Your task to perform on an android device: delete location history Image 0: 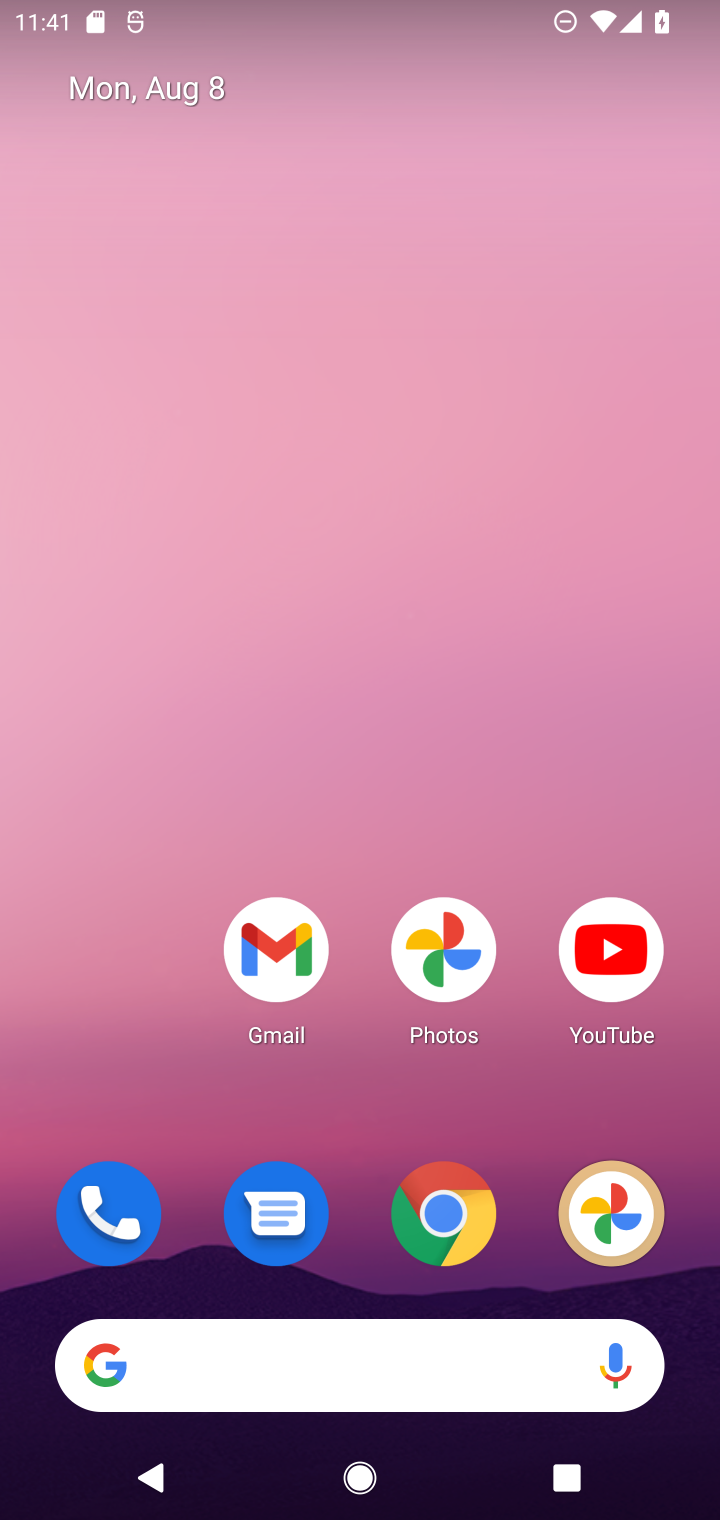
Step 0: press home button
Your task to perform on an android device: delete location history Image 1: 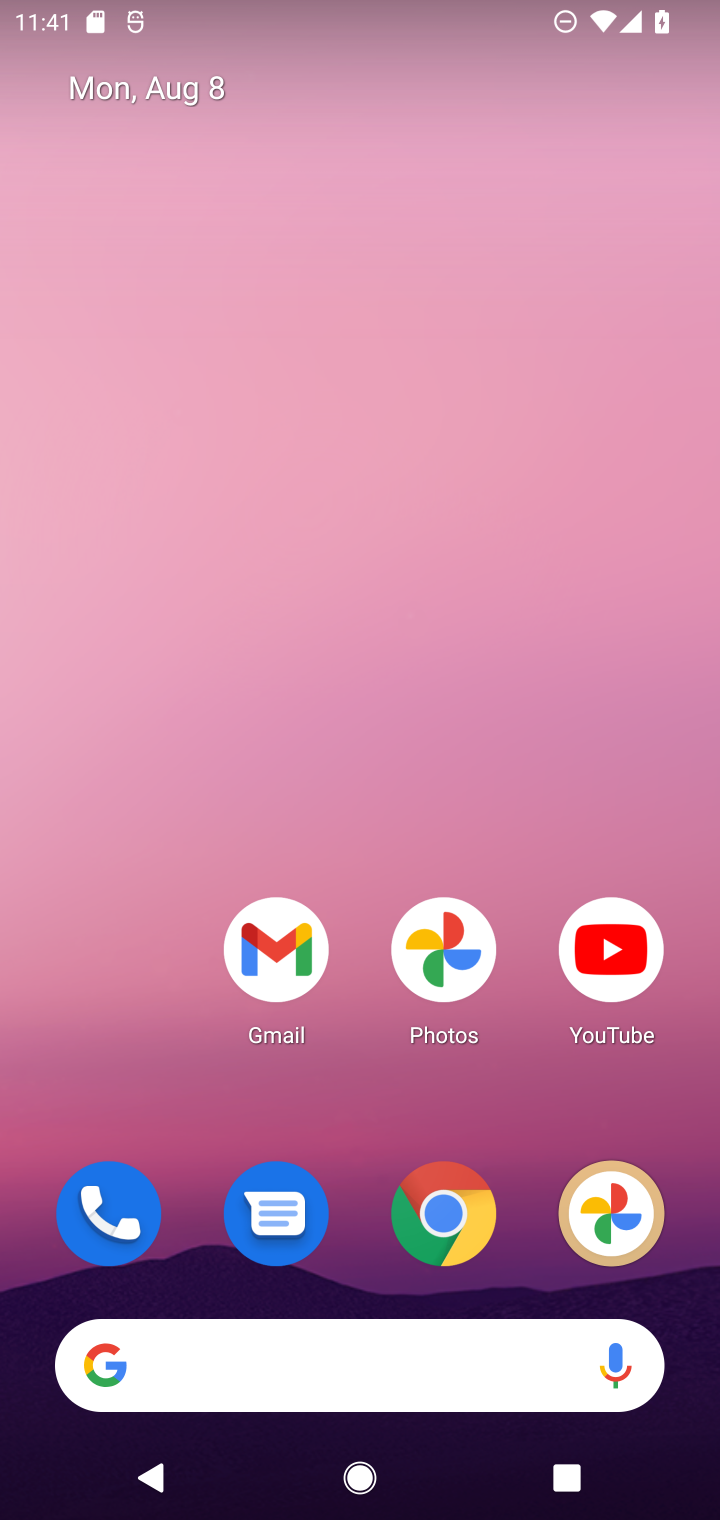
Step 1: drag from (369, 1110) to (433, 233)
Your task to perform on an android device: delete location history Image 2: 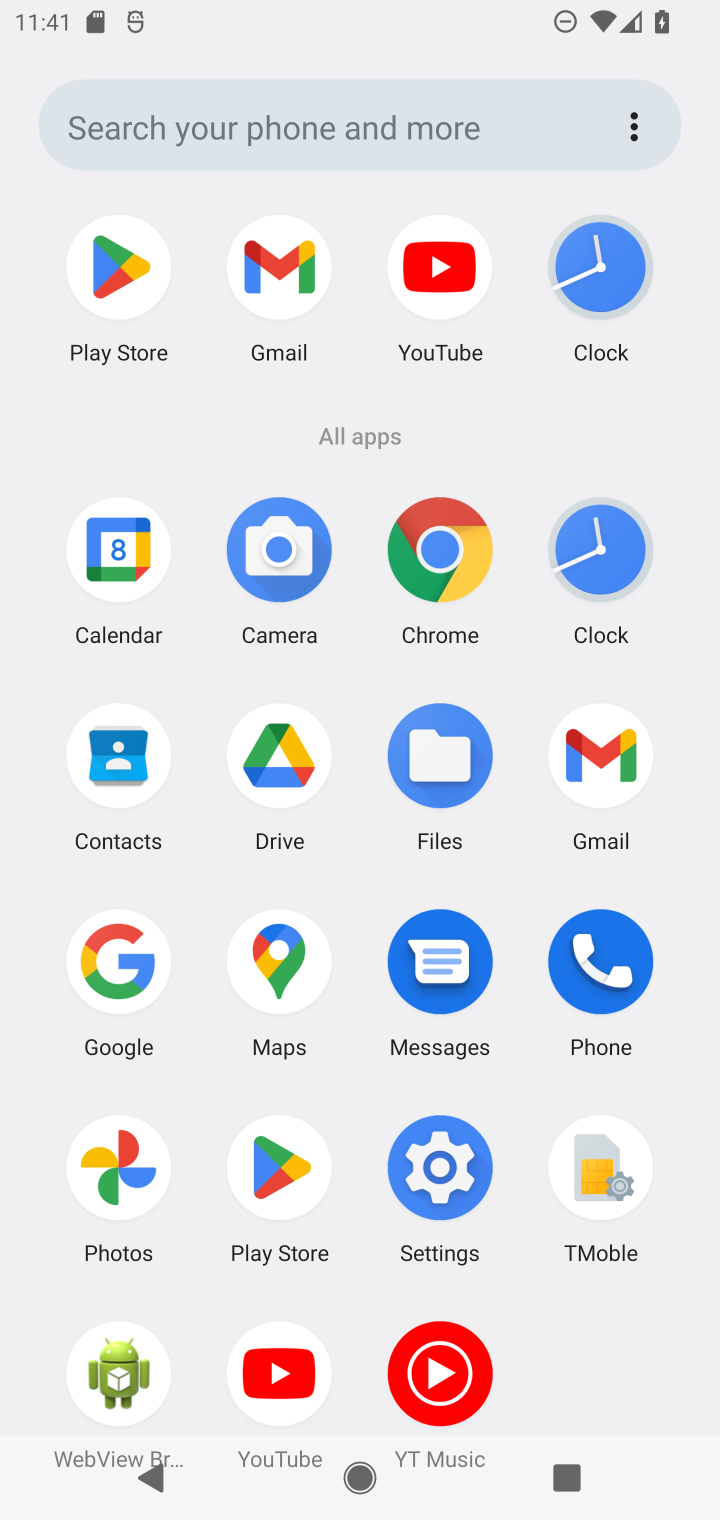
Step 2: click (275, 937)
Your task to perform on an android device: delete location history Image 3: 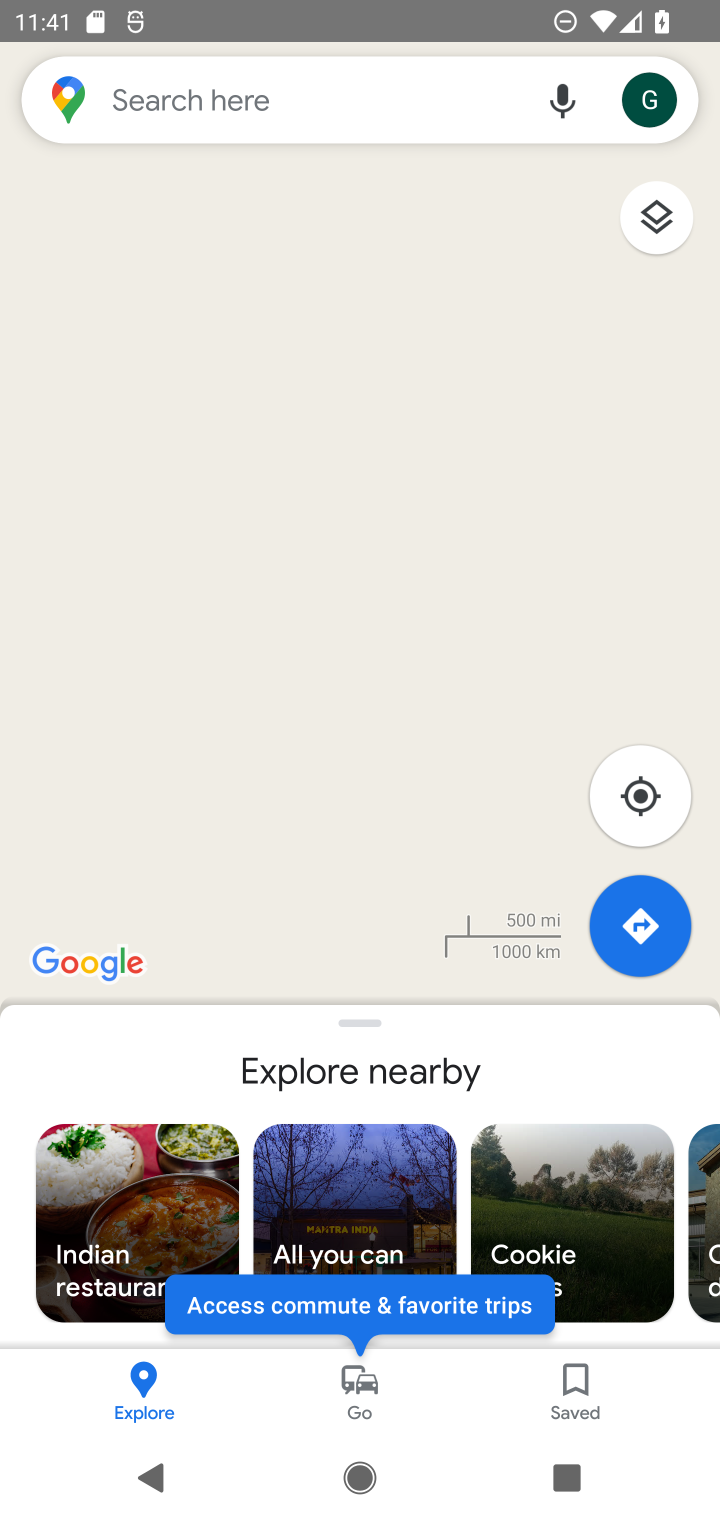
Step 3: click (642, 100)
Your task to perform on an android device: delete location history Image 4: 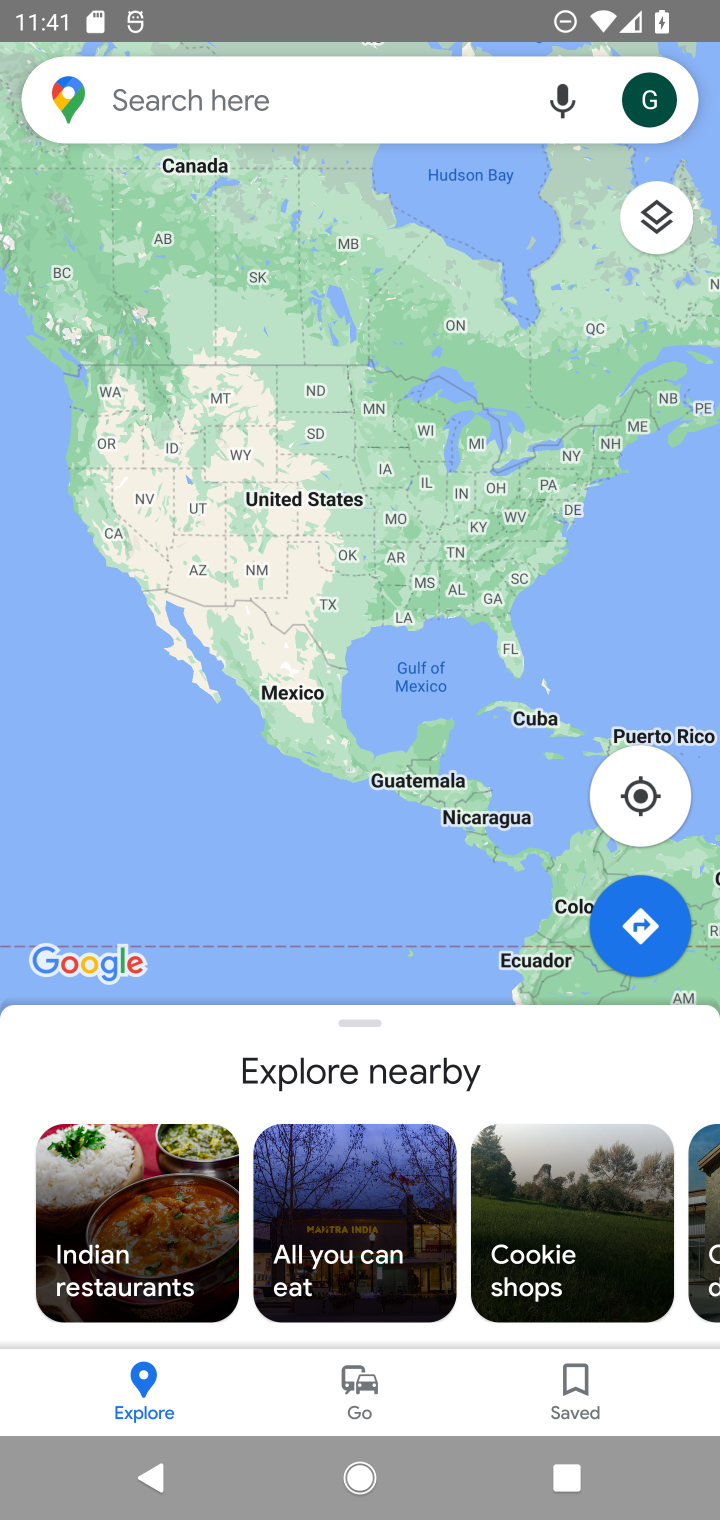
Step 4: click (651, 94)
Your task to perform on an android device: delete location history Image 5: 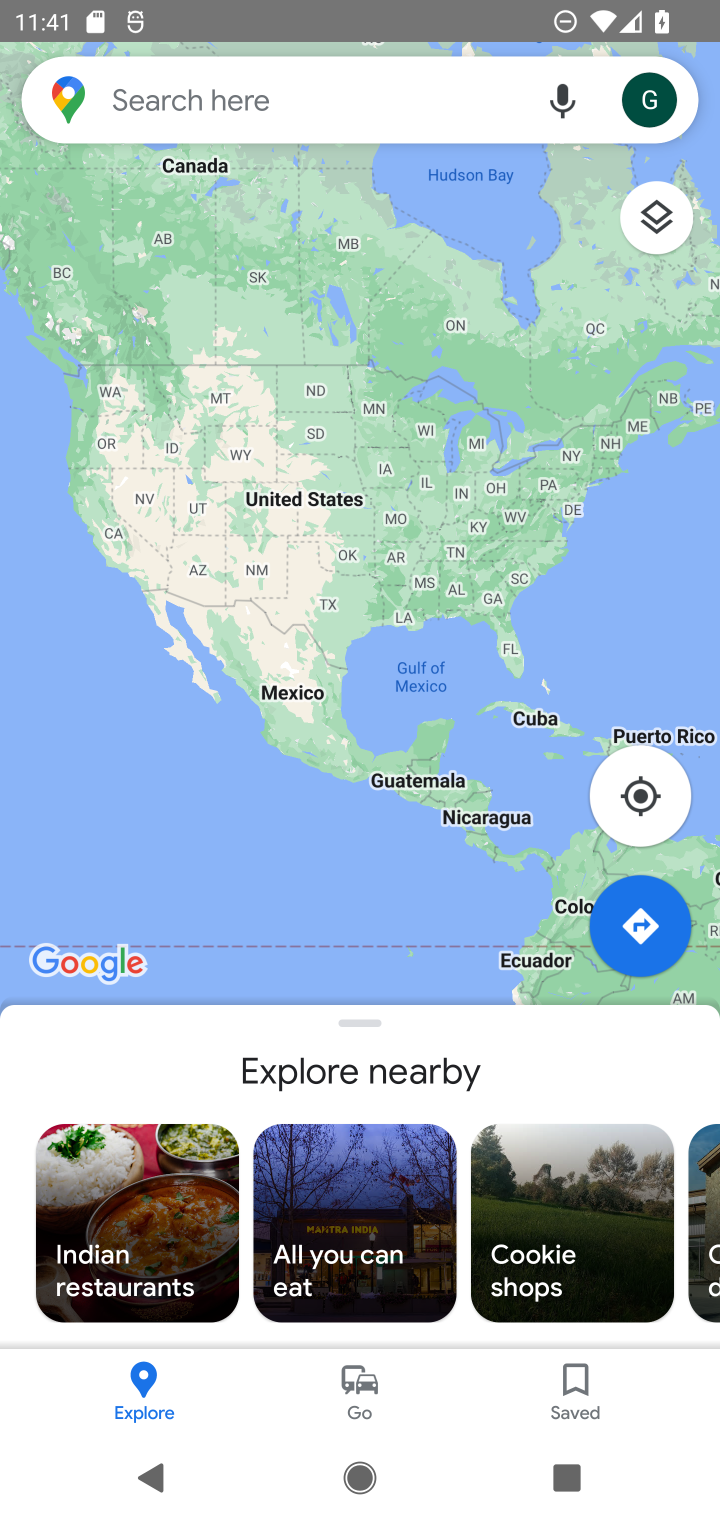
Step 5: click (663, 89)
Your task to perform on an android device: delete location history Image 6: 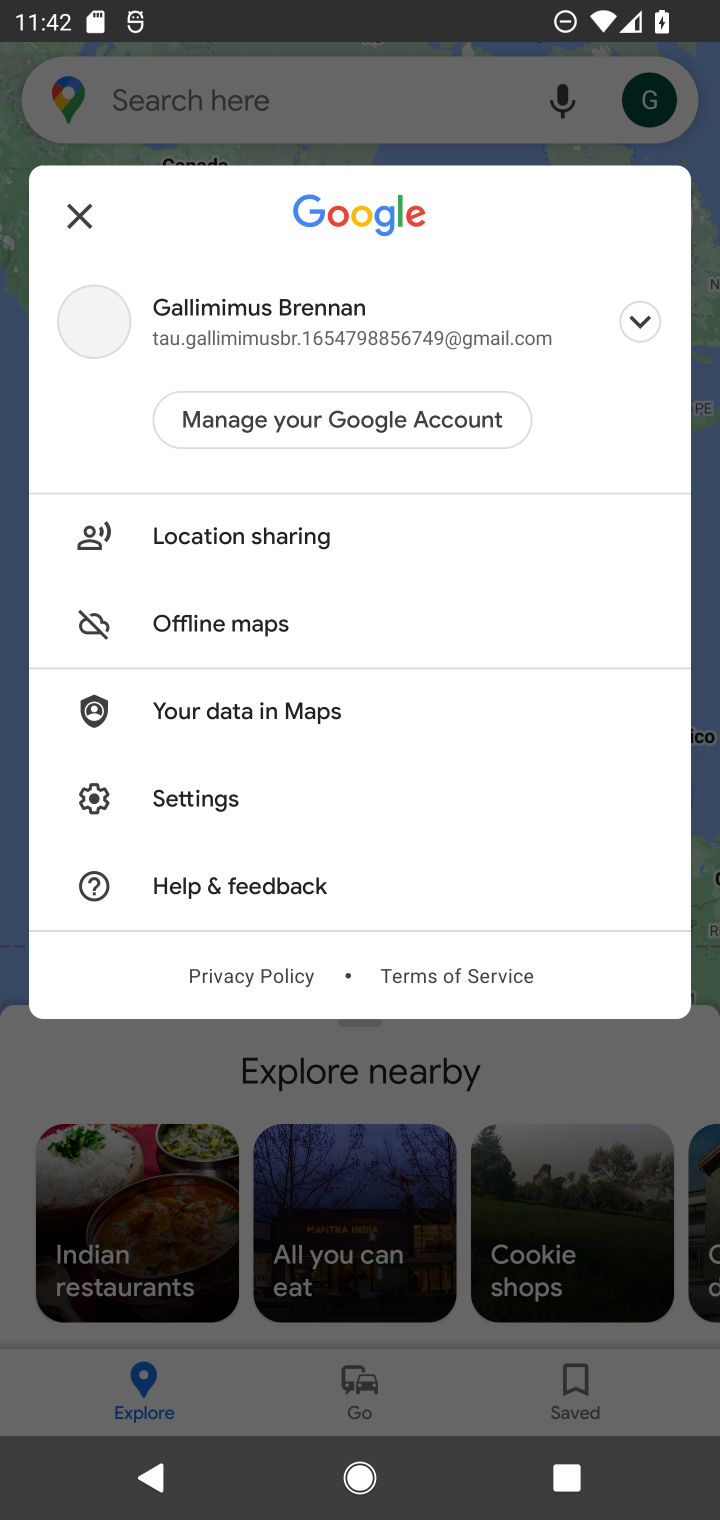
Step 6: click (414, 1183)
Your task to perform on an android device: delete location history Image 7: 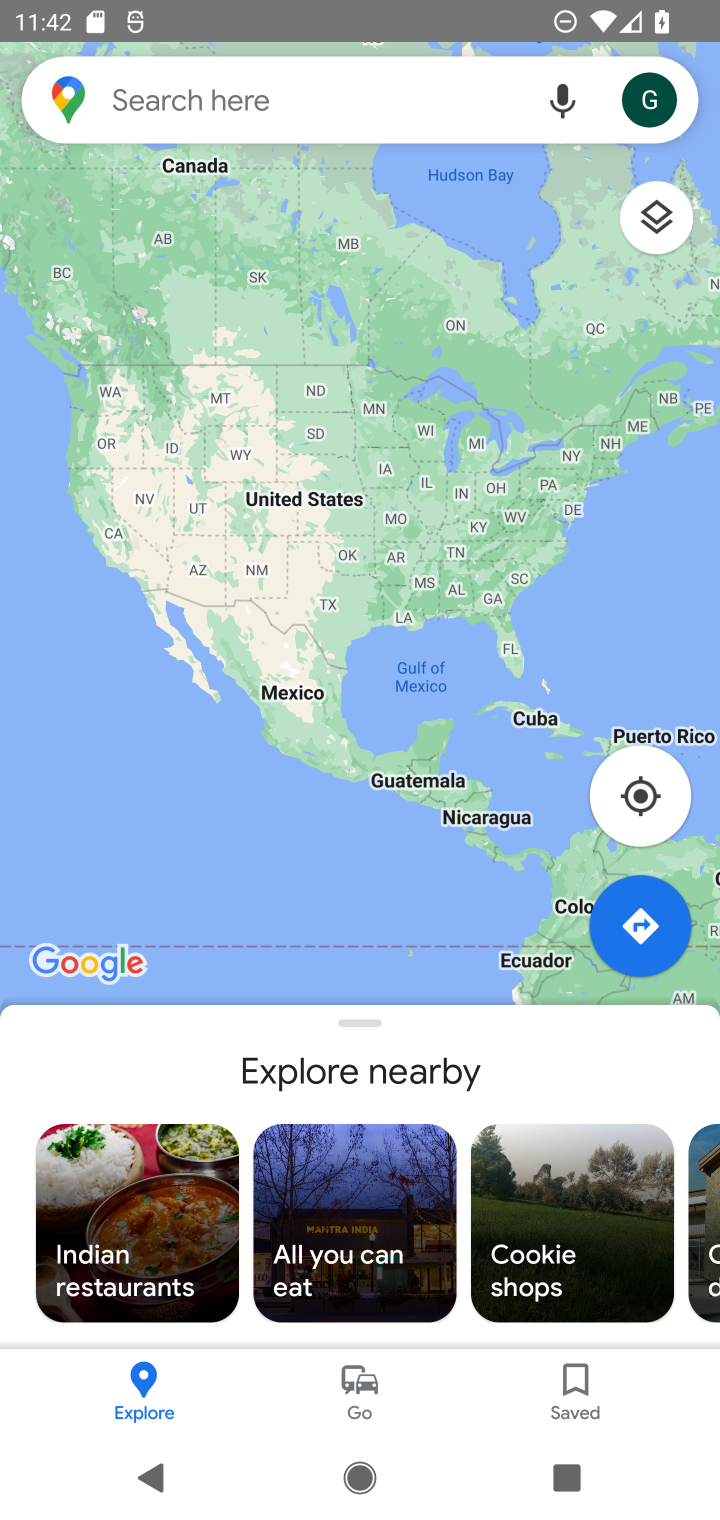
Step 7: click (64, 100)
Your task to perform on an android device: delete location history Image 8: 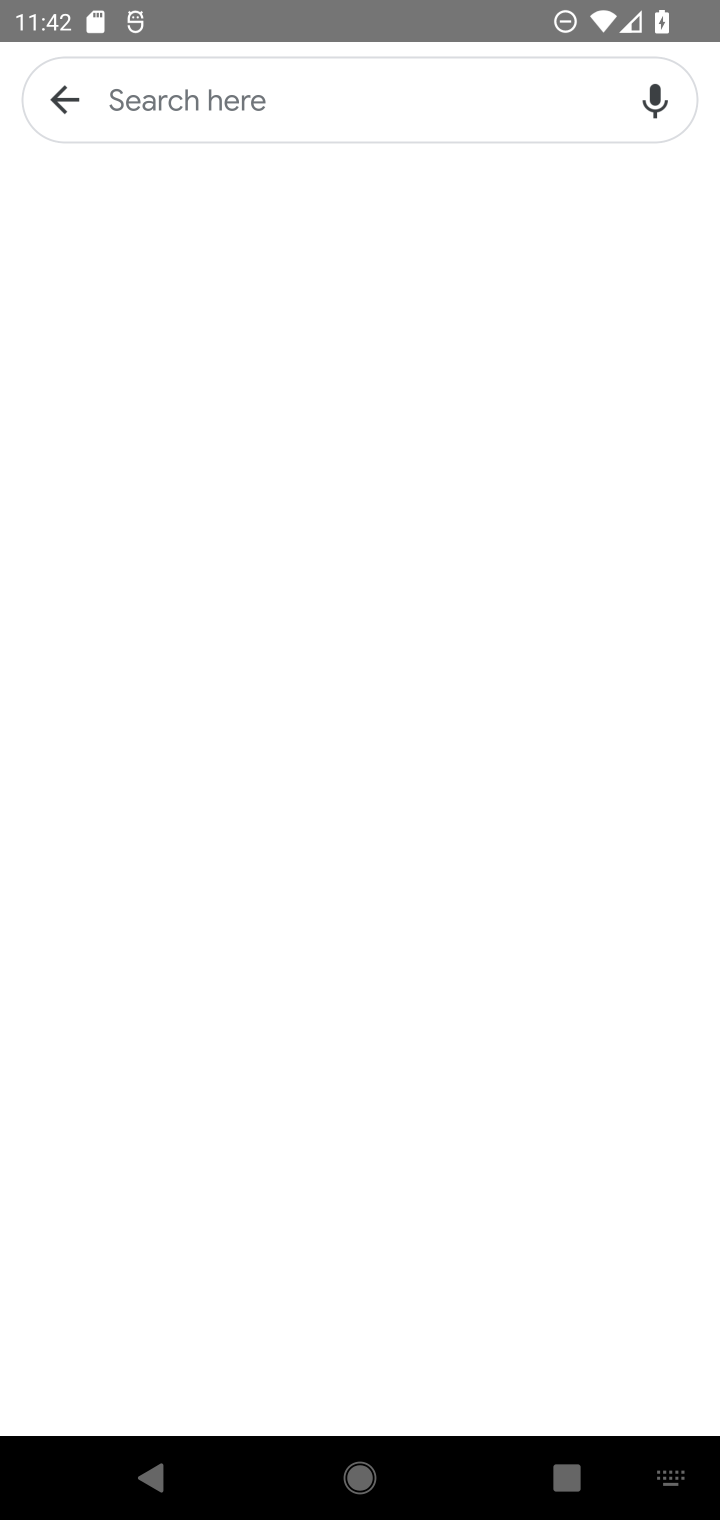
Step 8: click (74, 95)
Your task to perform on an android device: delete location history Image 9: 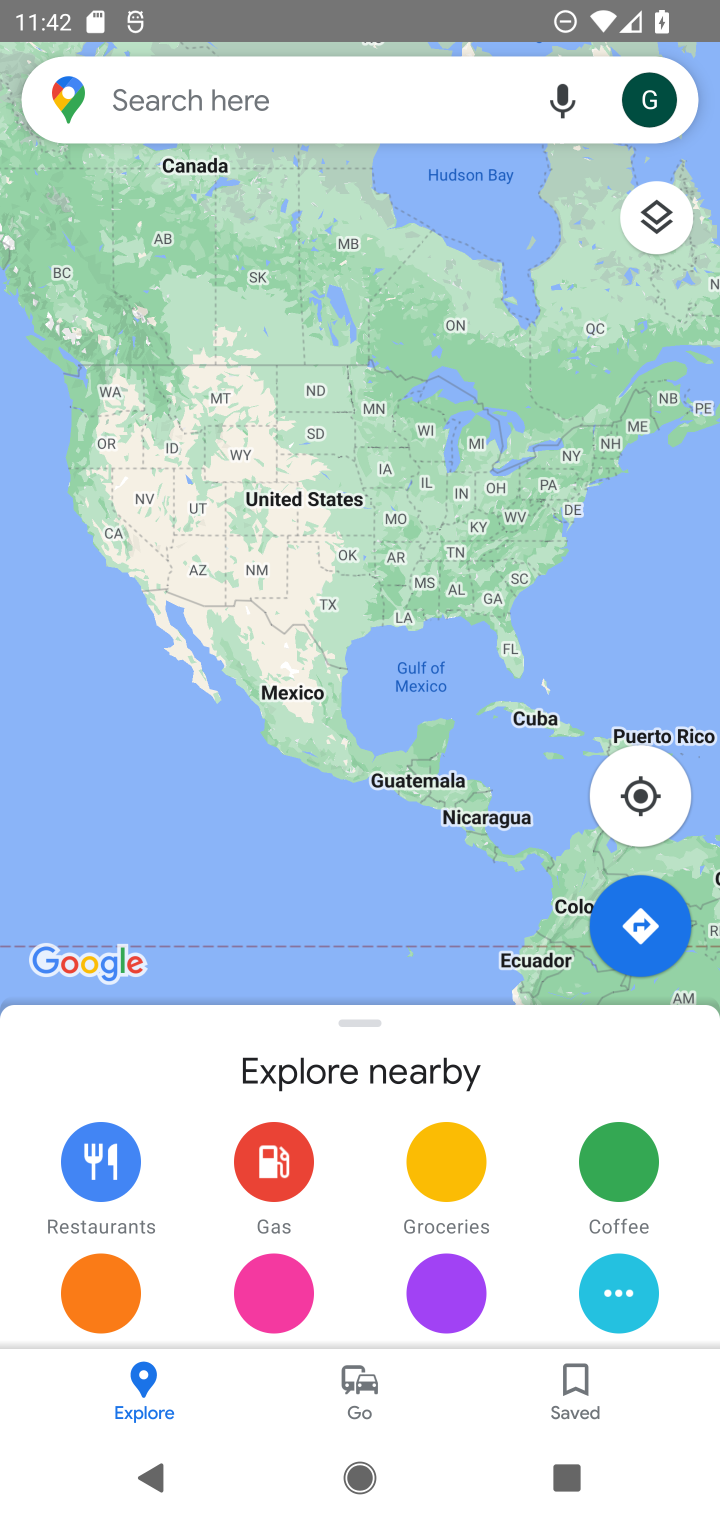
Step 9: click (665, 105)
Your task to perform on an android device: delete location history Image 10: 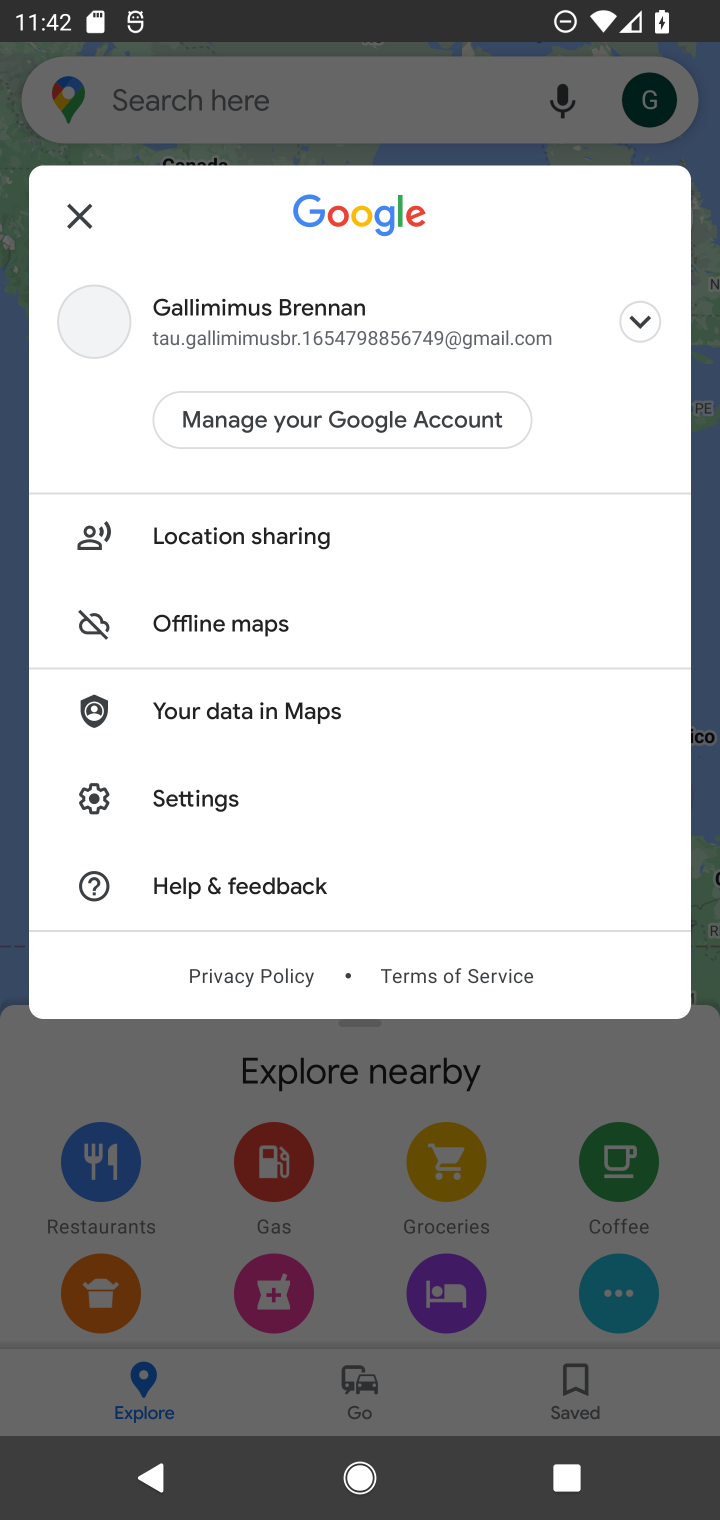
Step 10: click (177, 799)
Your task to perform on an android device: delete location history Image 11: 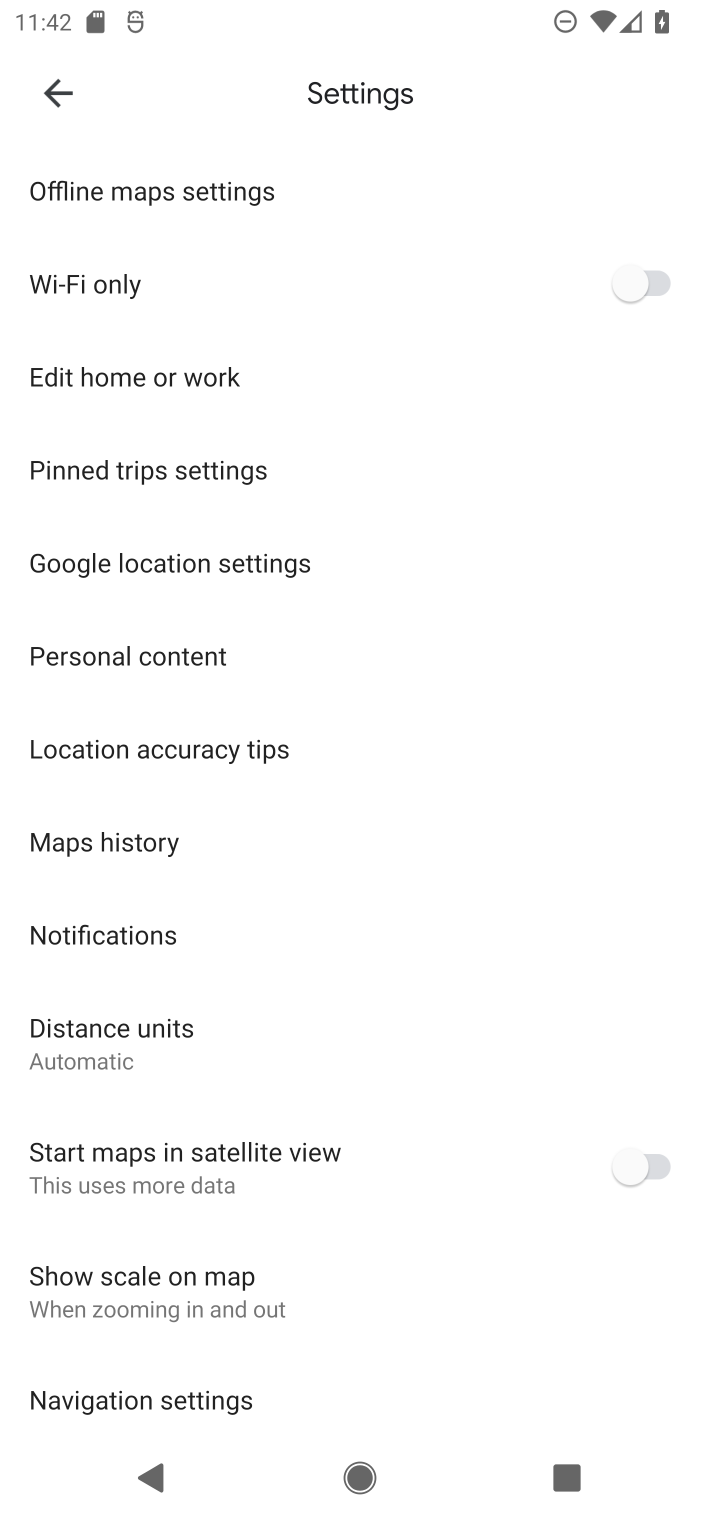
Step 11: click (190, 658)
Your task to perform on an android device: delete location history Image 12: 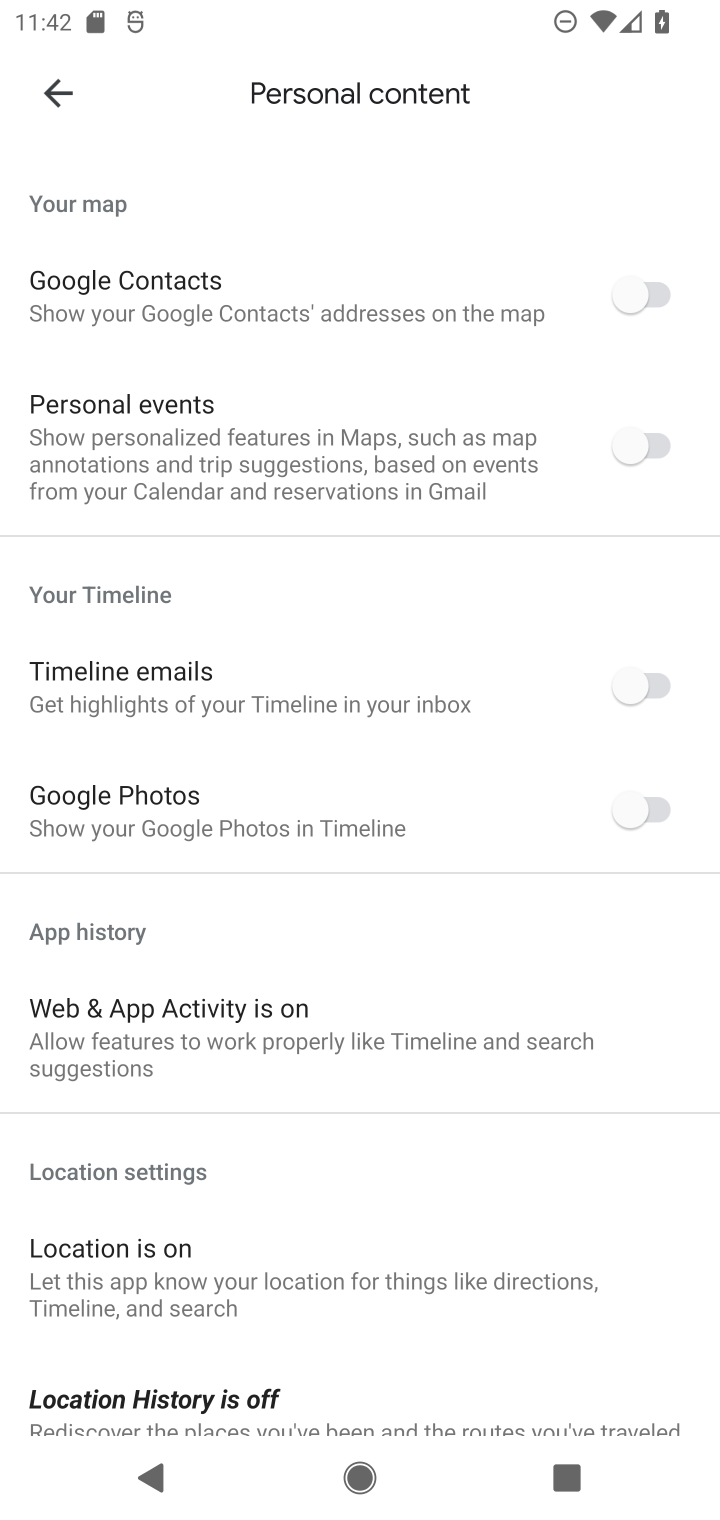
Step 12: drag from (316, 1290) to (413, 351)
Your task to perform on an android device: delete location history Image 13: 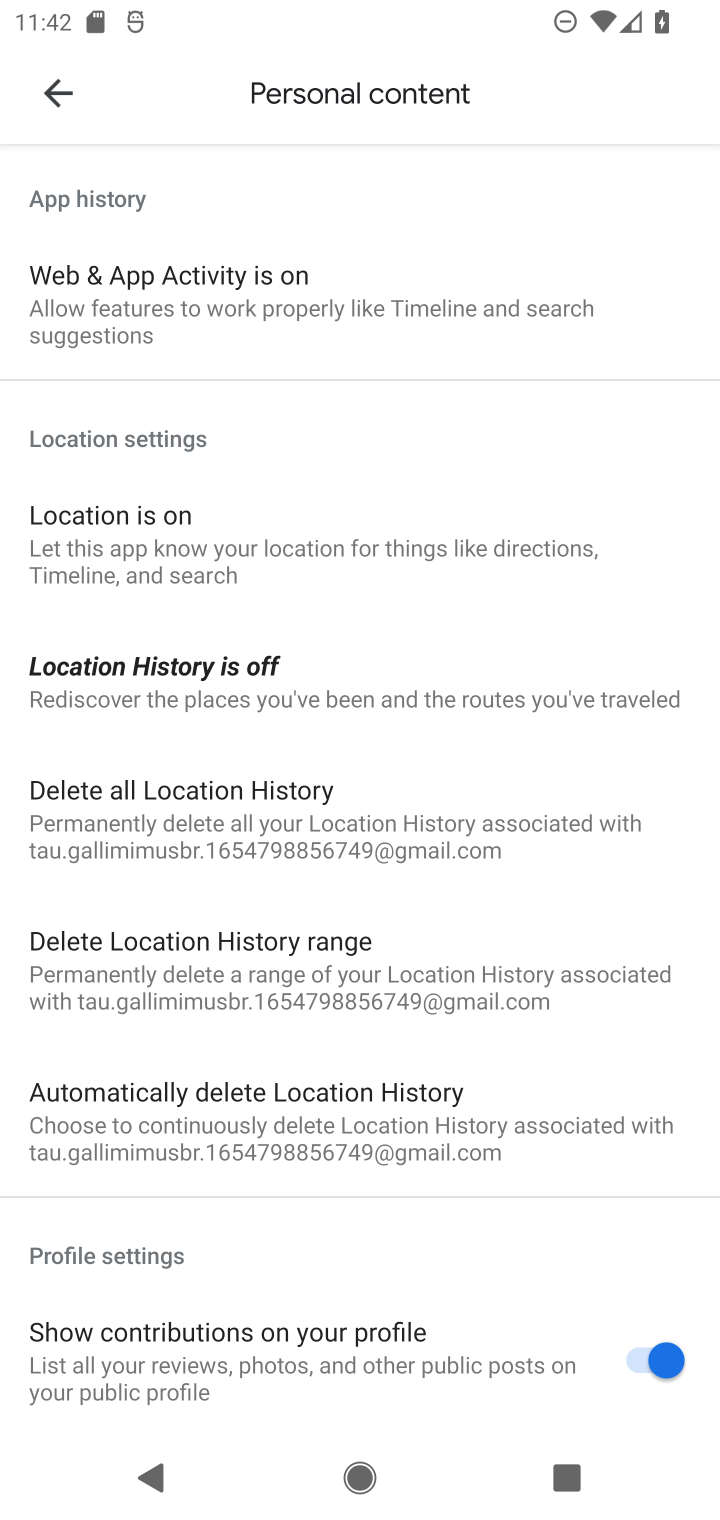
Step 13: click (300, 952)
Your task to perform on an android device: delete location history Image 14: 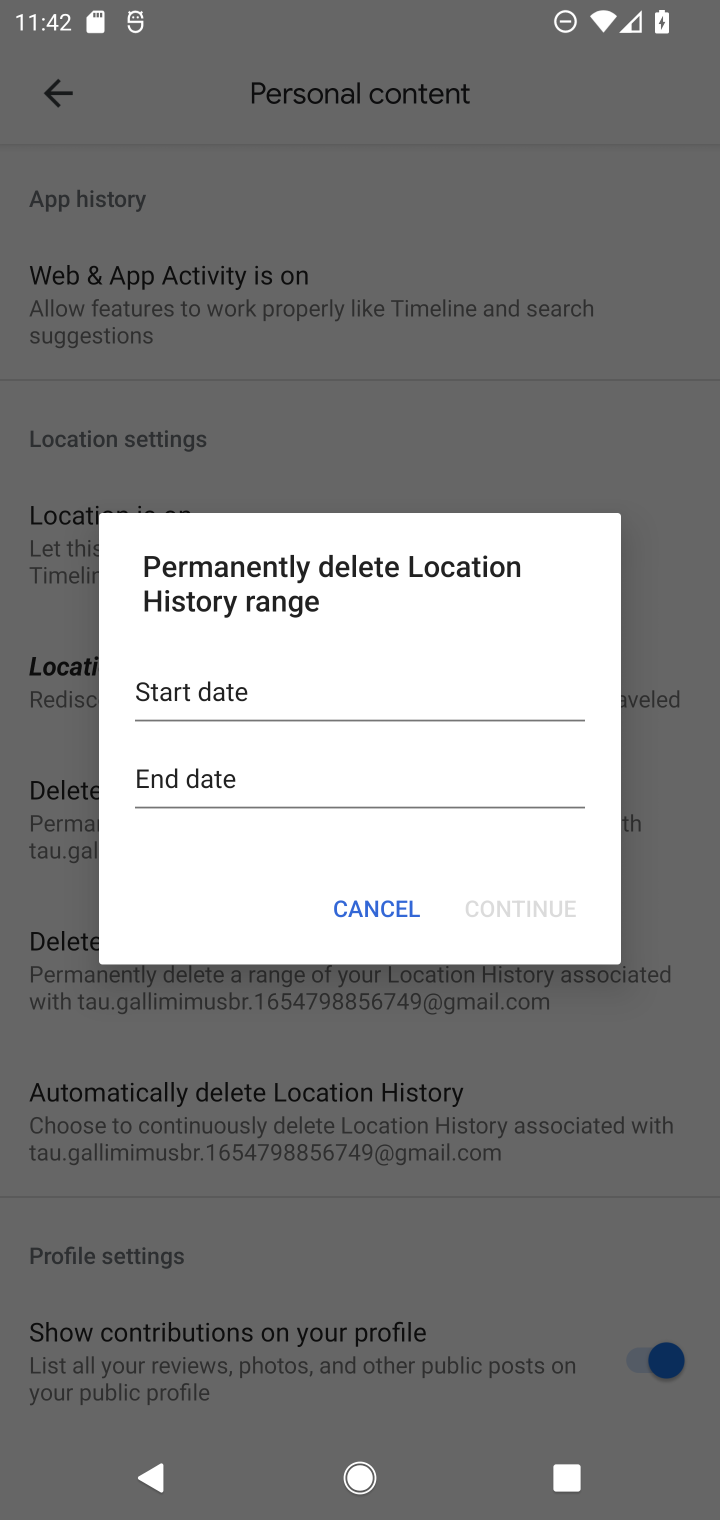
Step 14: click (411, 901)
Your task to perform on an android device: delete location history Image 15: 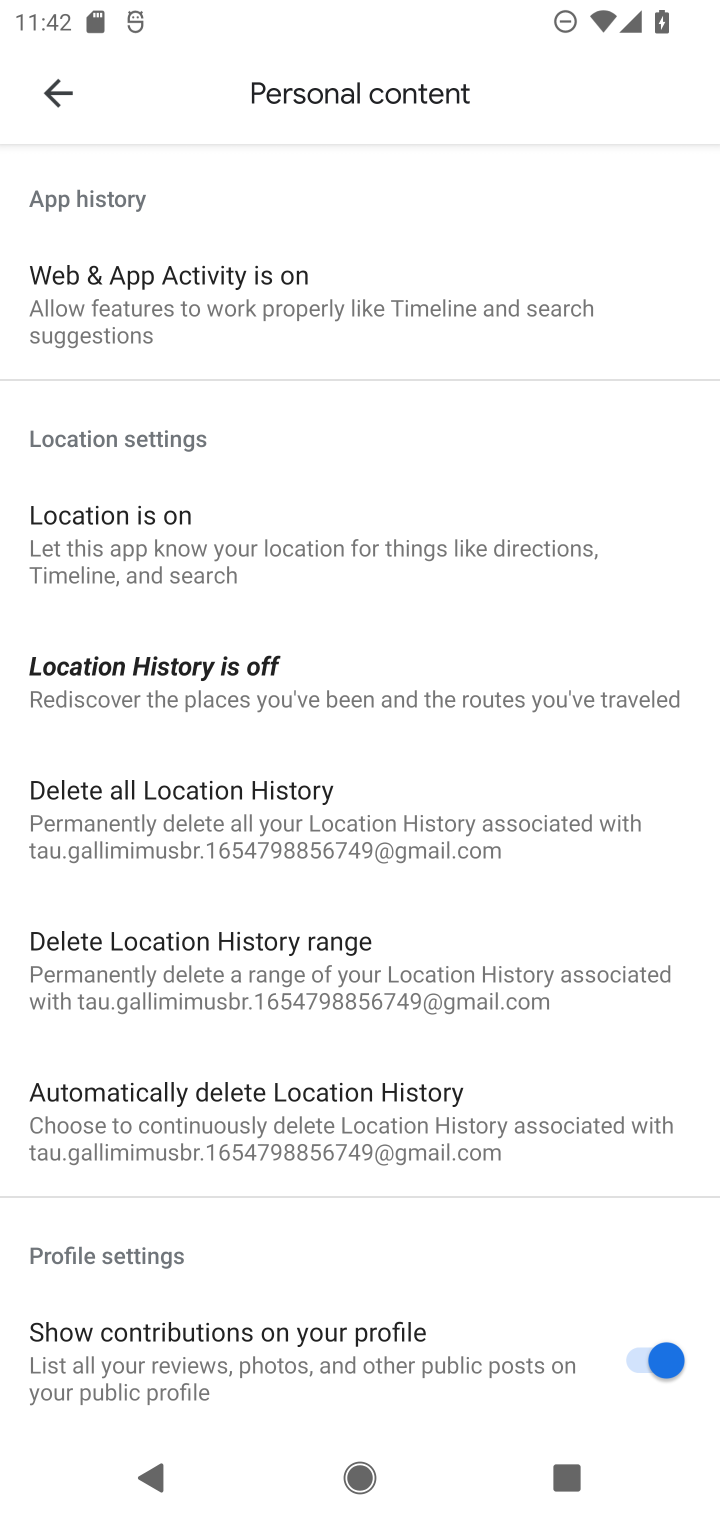
Step 15: click (219, 824)
Your task to perform on an android device: delete location history Image 16: 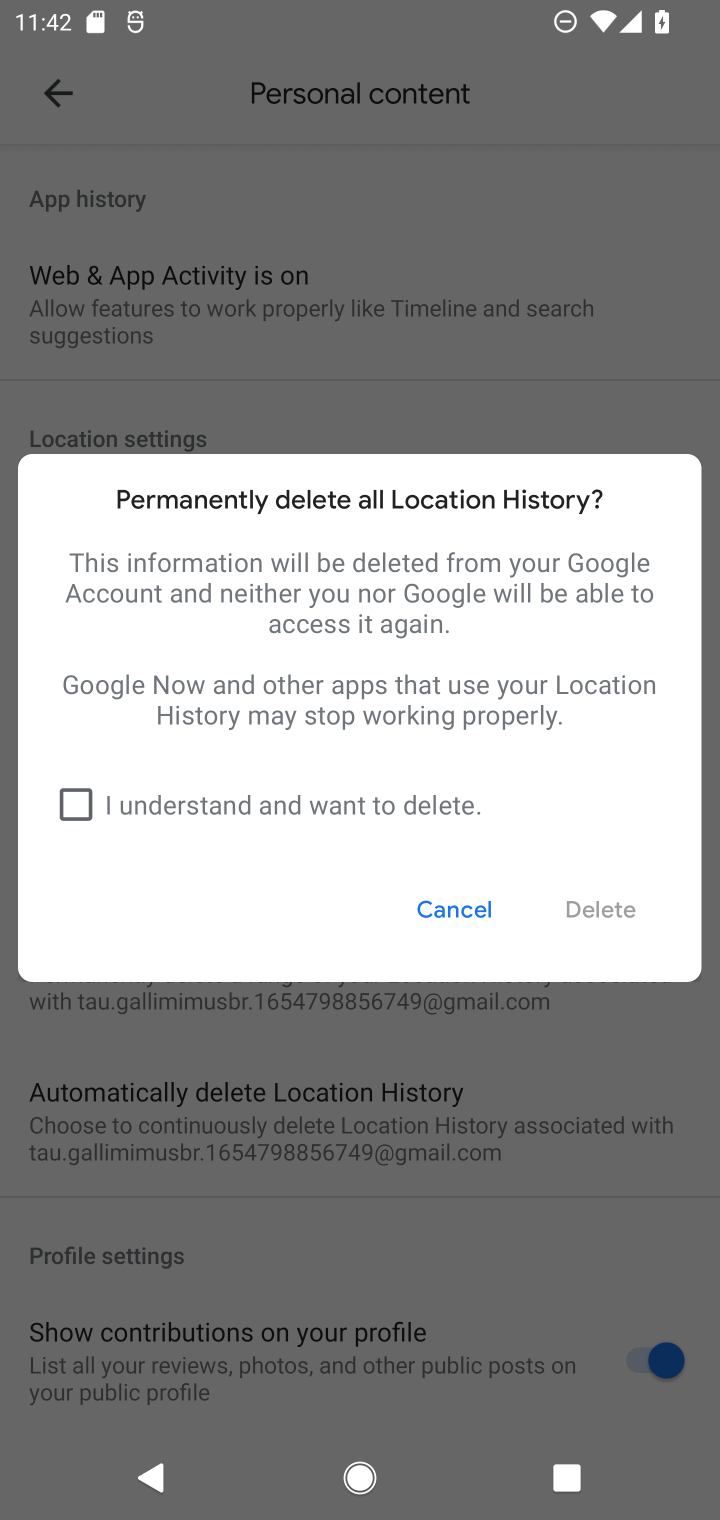
Step 16: click (64, 814)
Your task to perform on an android device: delete location history Image 17: 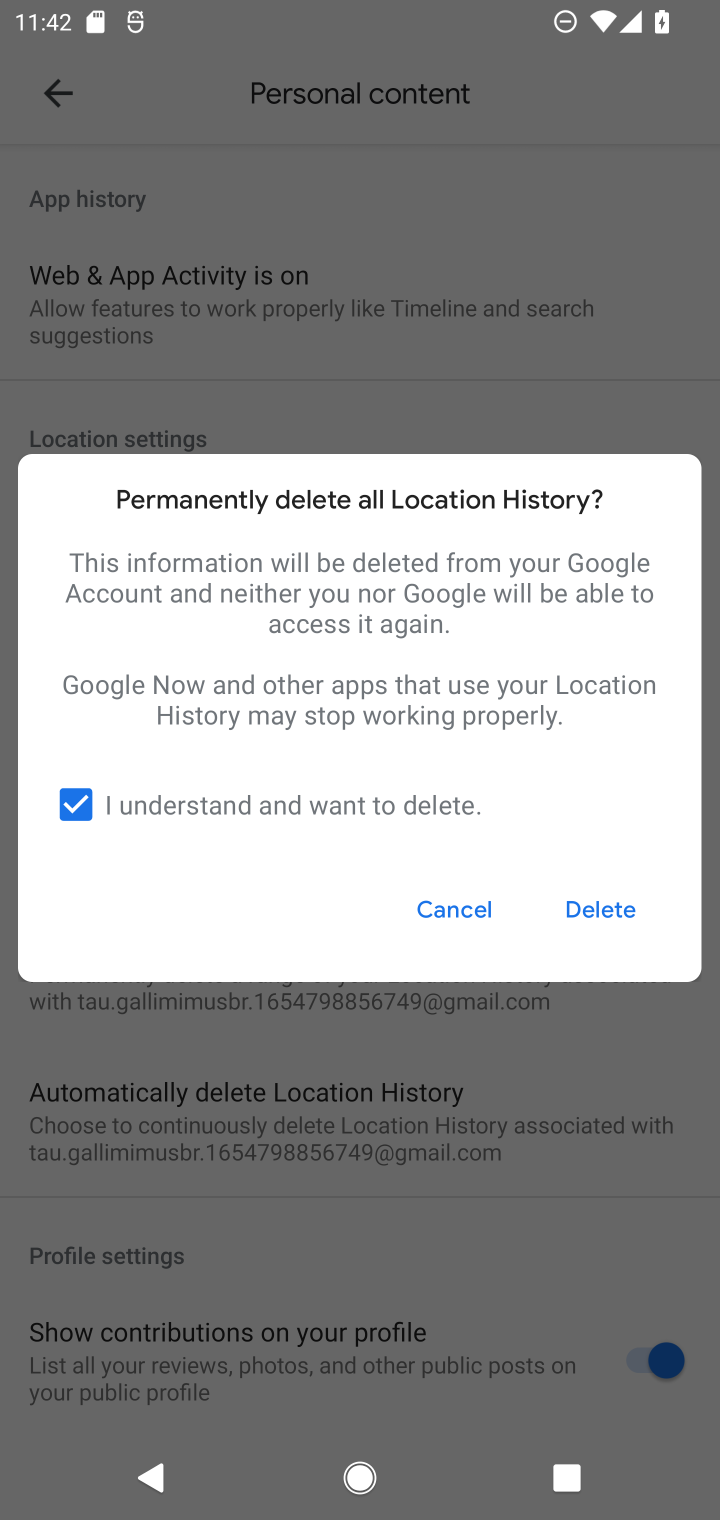
Step 17: click (629, 921)
Your task to perform on an android device: delete location history Image 18: 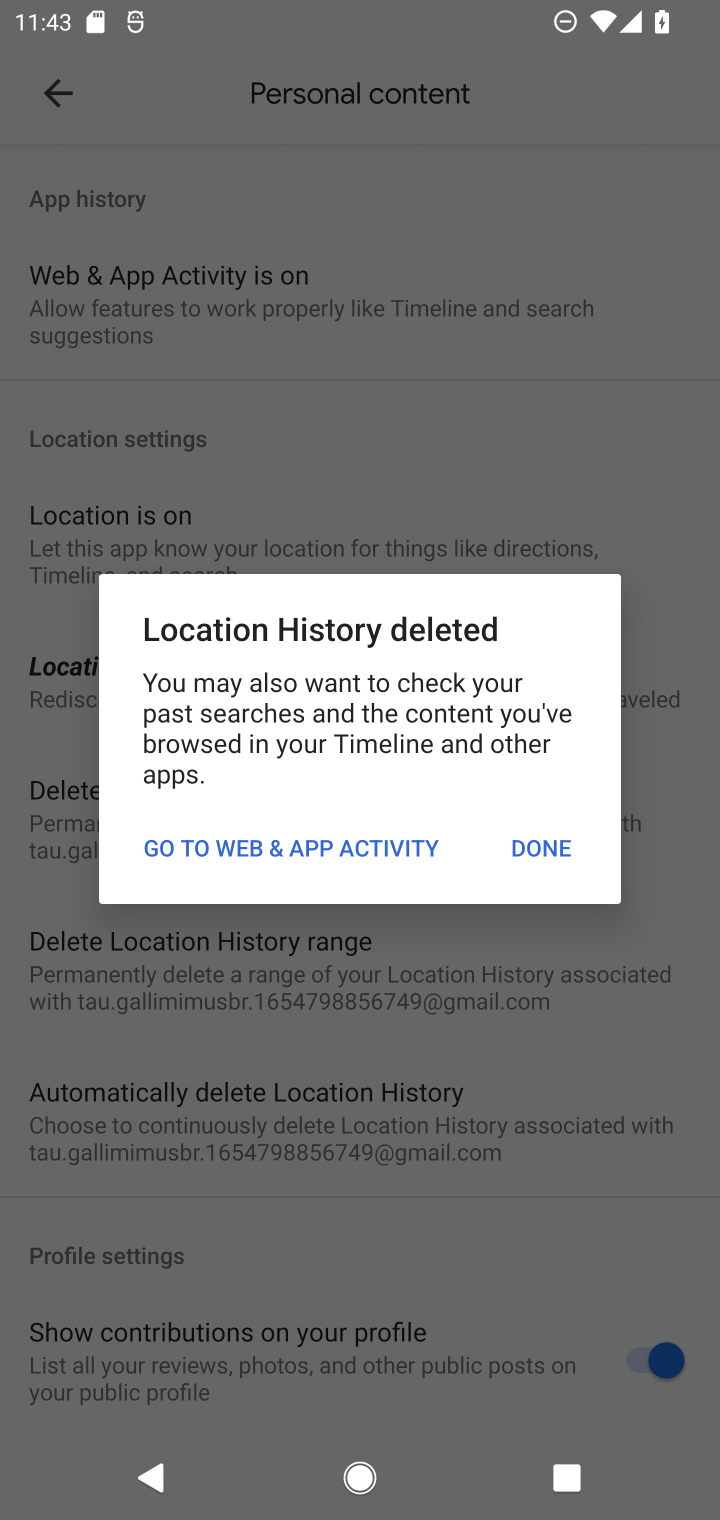
Step 18: task complete